Your task to perform on an android device: turn smart compose on in the gmail app Image 0: 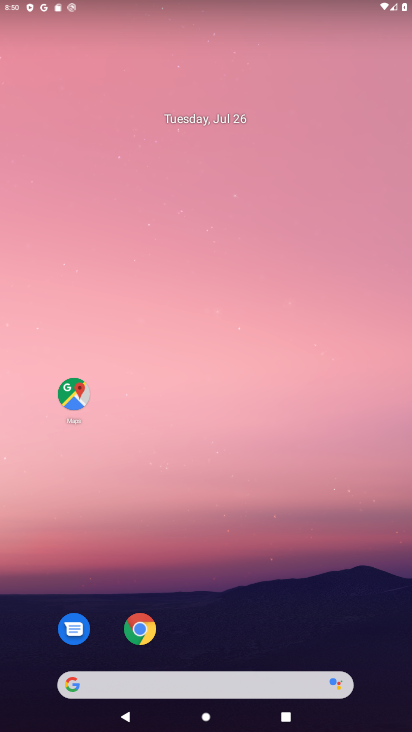
Step 0: press home button
Your task to perform on an android device: turn smart compose on in the gmail app Image 1: 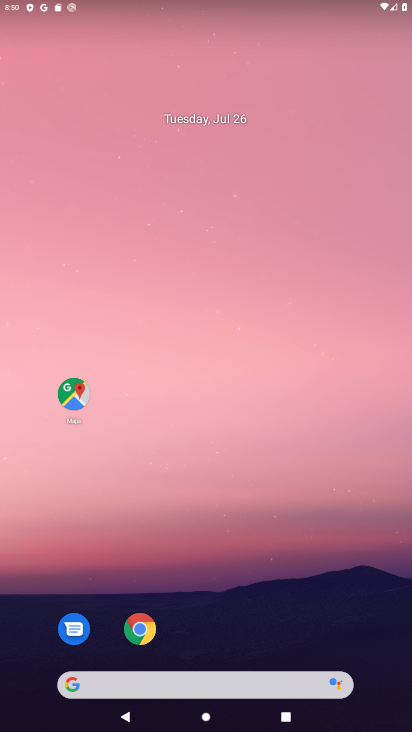
Step 1: drag from (269, 605) to (278, 23)
Your task to perform on an android device: turn smart compose on in the gmail app Image 2: 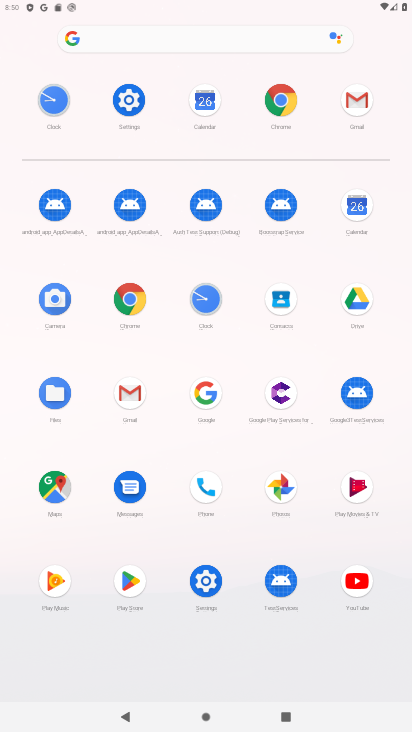
Step 2: click (125, 409)
Your task to perform on an android device: turn smart compose on in the gmail app Image 3: 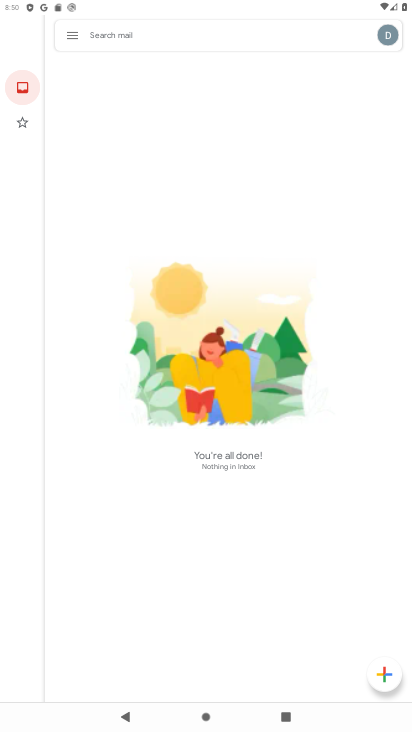
Step 3: click (67, 29)
Your task to perform on an android device: turn smart compose on in the gmail app Image 4: 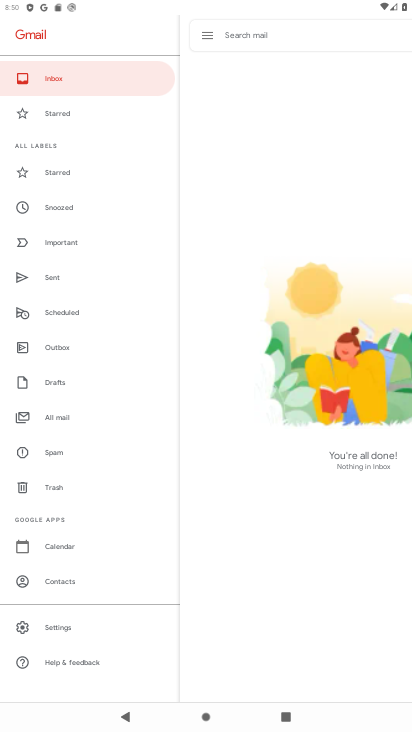
Step 4: click (51, 621)
Your task to perform on an android device: turn smart compose on in the gmail app Image 5: 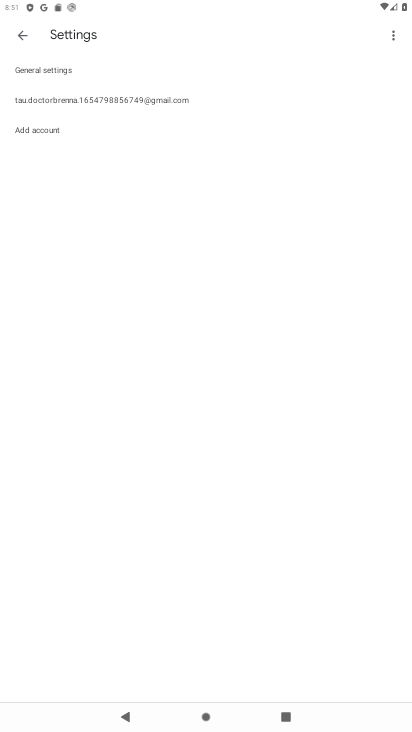
Step 5: click (45, 101)
Your task to perform on an android device: turn smart compose on in the gmail app Image 6: 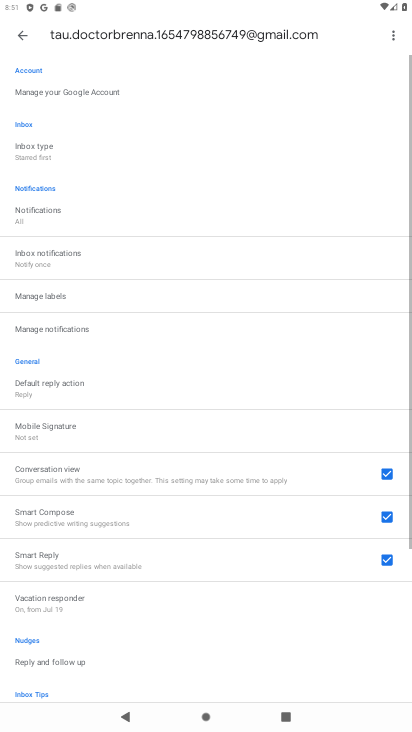
Step 6: task complete